Your task to perform on an android device: check battery use Image 0: 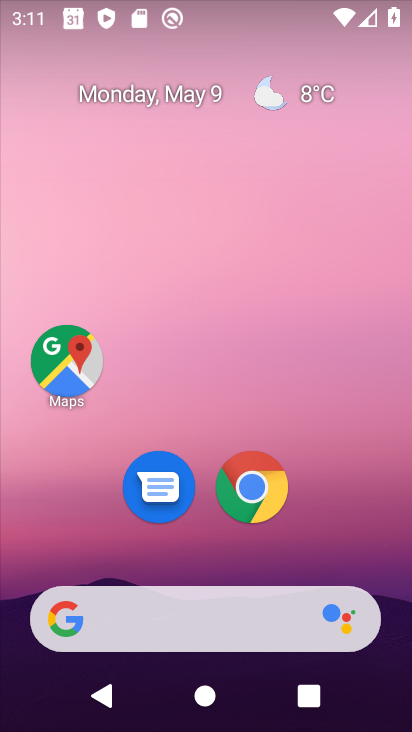
Step 0: drag from (210, 547) to (212, 134)
Your task to perform on an android device: check battery use Image 1: 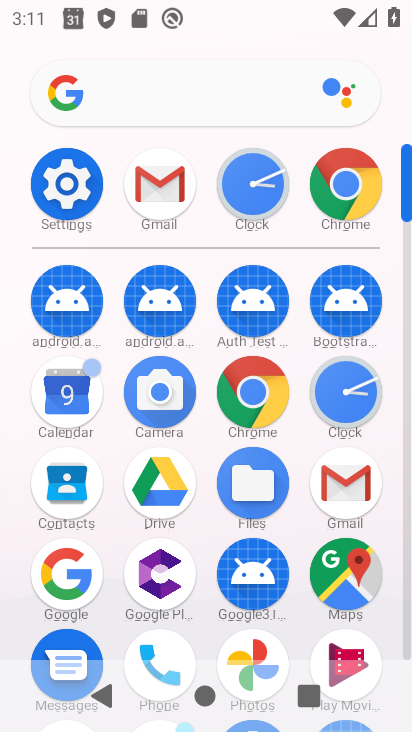
Step 1: click (66, 178)
Your task to perform on an android device: check battery use Image 2: 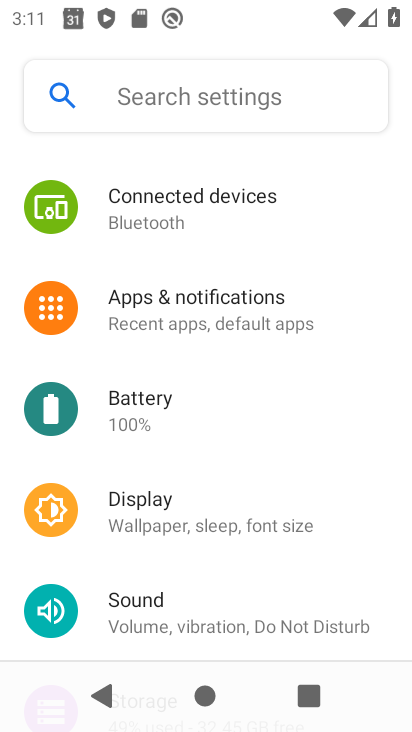
Step 2: click (174, 406)
Your task to perform on an android device: check battery use Image 3: 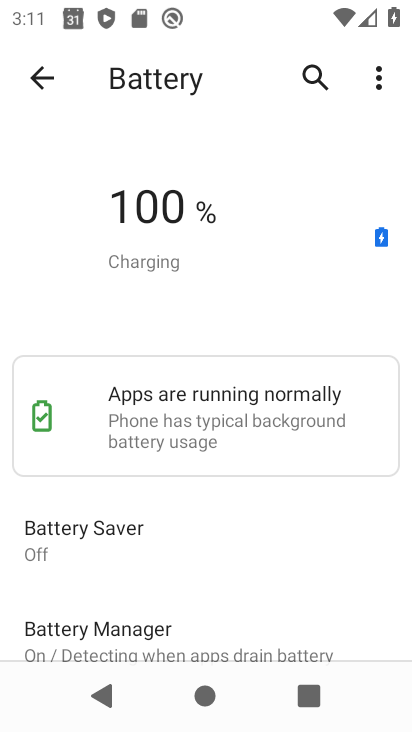
Step 3: click (376, 78)
Your task to perform on an android device: check battery use Image 4: 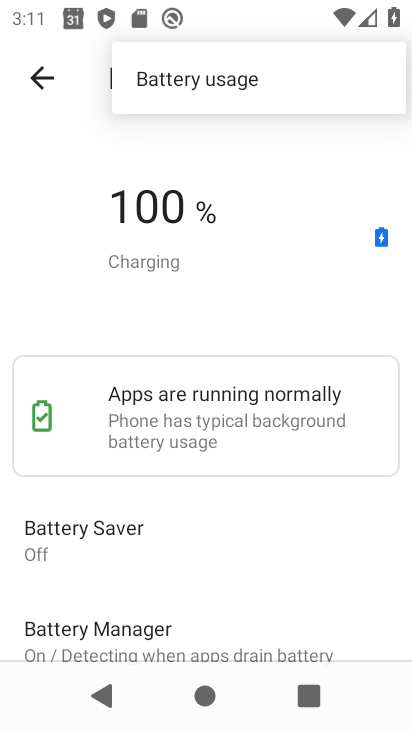
Step 4: click (205, 89)
Your task to perform on an android device: check battery use Image 5: 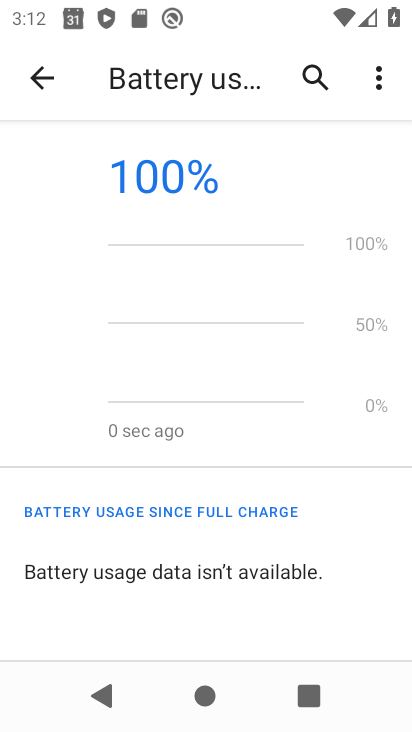
Step 5: task complete